Your task to perform on an android device: Go to location settings Image 0: 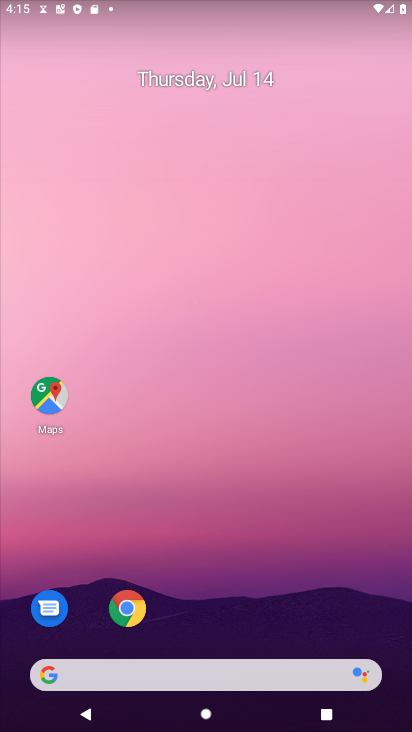
Step 0: drag from (205, 600) to (304, 92)
Your task to perform on an android device: Go to location settings Image 1: 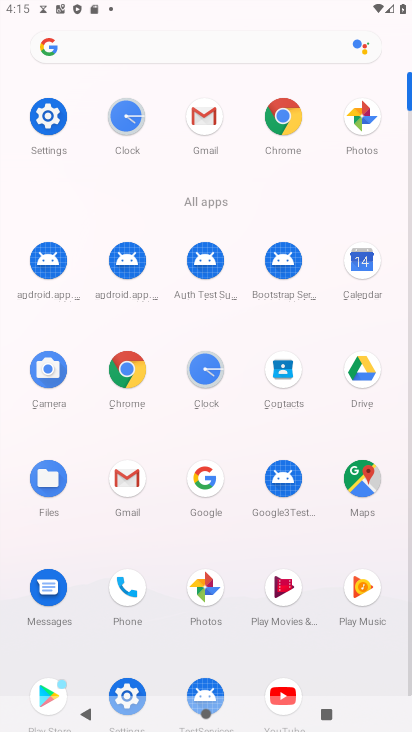
Step 1: click (114, 686)
Your task to perform on an android device: Go to location settings Image 2: 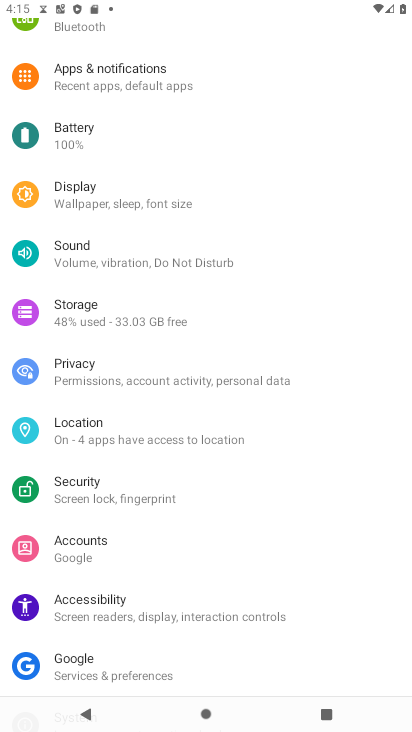
Step 2: click (160, 430)
Your task to perform on an android device: Go to location settings Image 3: 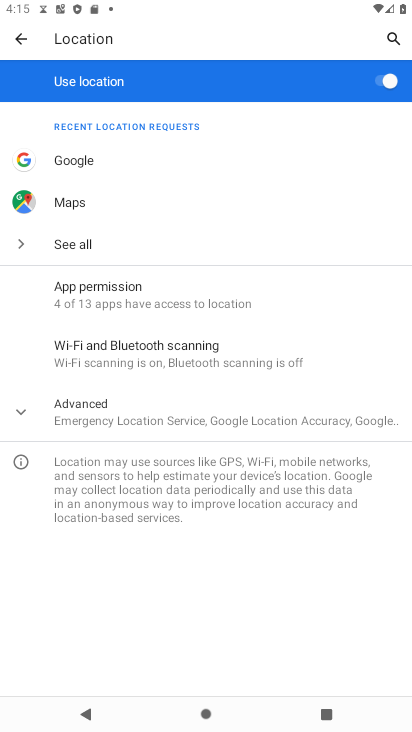
Step 3: task complete